Your task to perform on an android device: open chrome privacy settings Image 0: 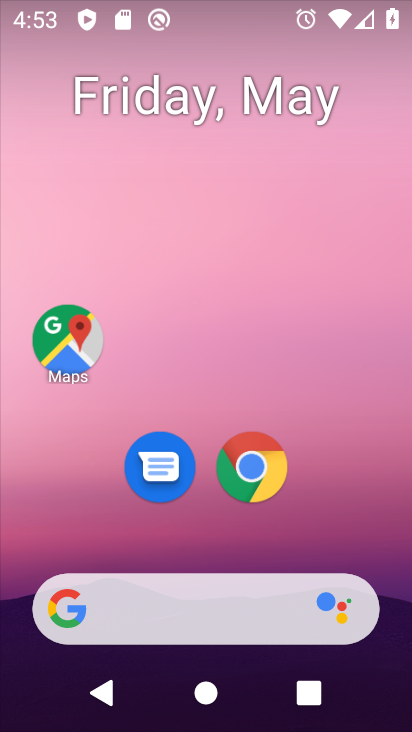
Step 0: click (250, 459)
Your task to perform on an android device: open chrome privacy settings Image 1: 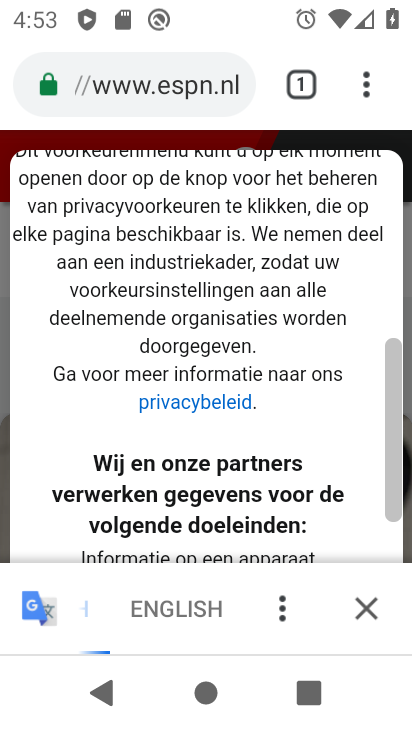
Step 1: drag from (364, 81) to (188, 509)
Your task to perform on an android device: open chrome privacy settings Image 2: 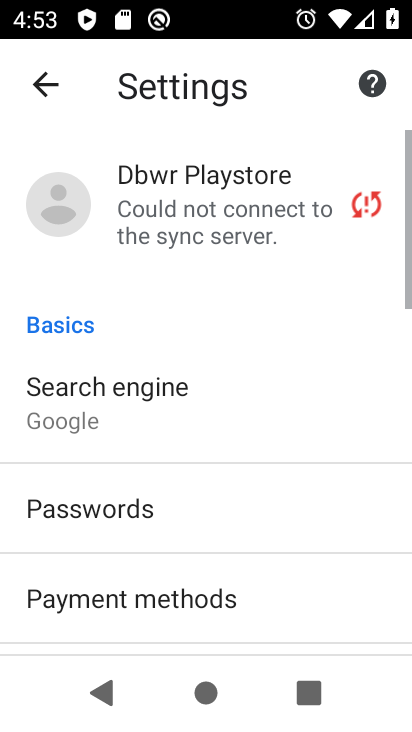
Step 2: drag from (276, 565) to (326, 35)
Your task to perform on an android device: open chrome privacy settings Image 3: 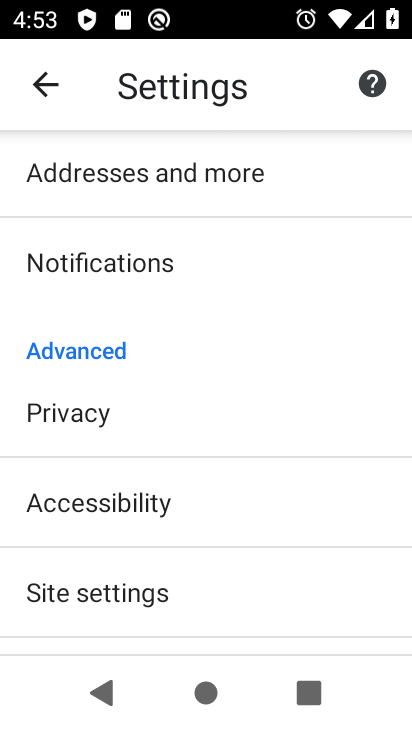
Step 3: click (79, 426)
Your task to perform on an android device: open chrome privacy settings Image 4: 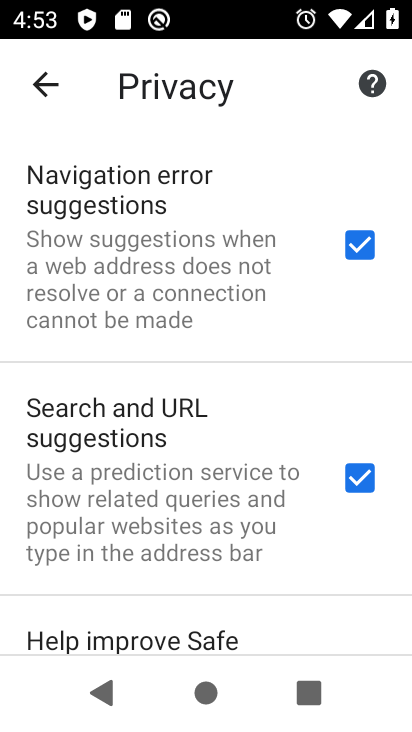
Step 4: task complete